Your task to perform on an android device: Go to Google maps Image 0: 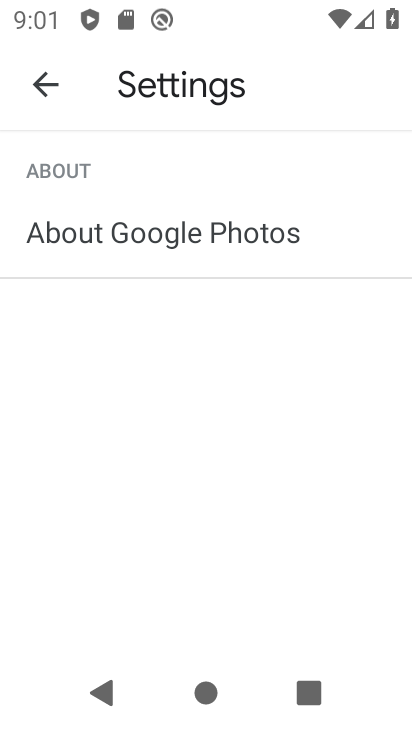
Step 0: press home button
Your task to perform on an android device: Go to Google maps Image 1: 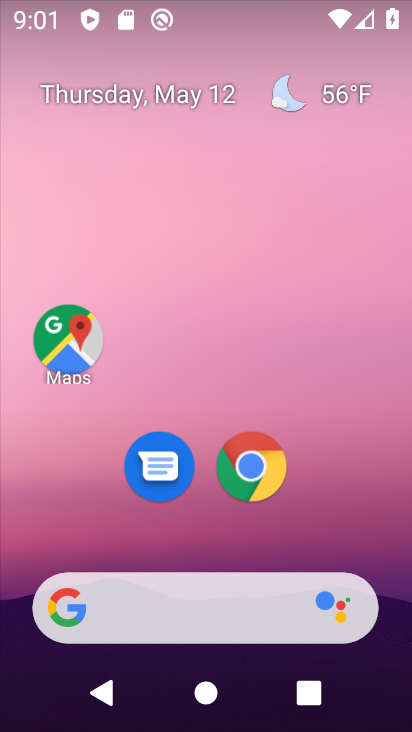
Step 1: click (66, 347)
Your task to perform on an android device: Go to Google maps Image 2: 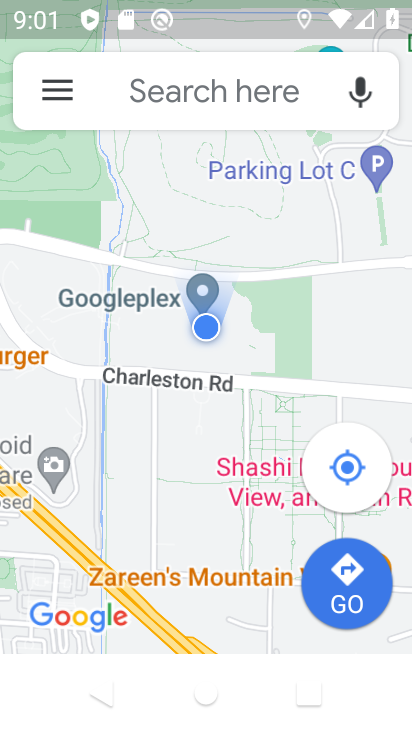
Step 2: task complete